Your task to perform on an android device: Check the news Image 0: 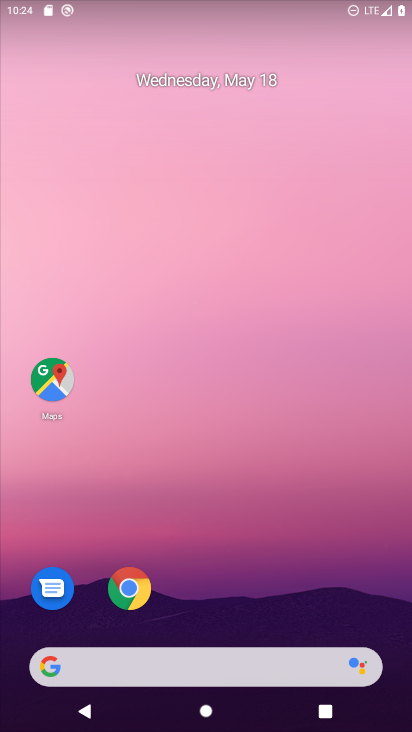
Step 0: click (99, 665)
Your task to perform on an android device: Check the news Image 1: 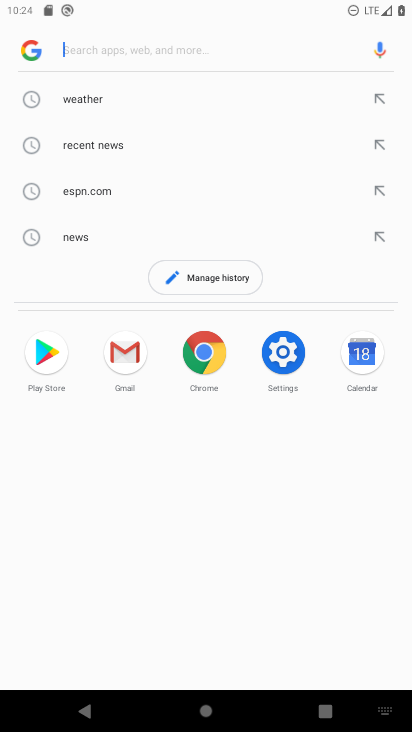
Step 1: click (85, 238)
Your task to perform on an android device: Check the news Image 2: 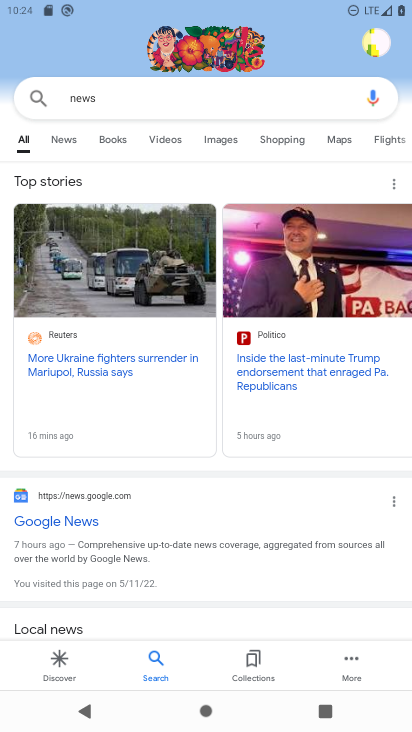
Step 2: click (64, 135)
Your task to perform on an android device: Check the news Image 3: 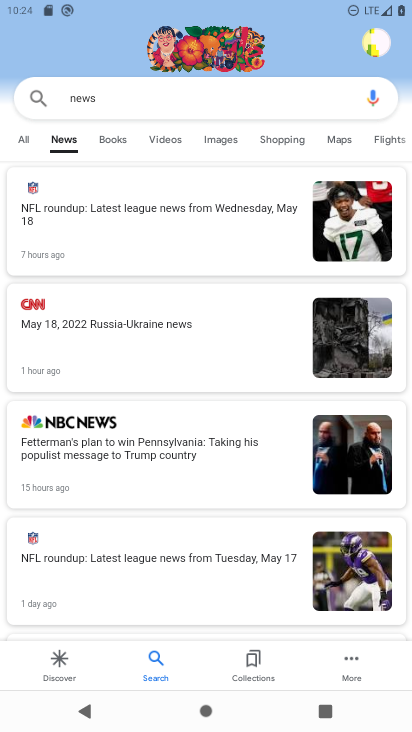
Step 3: task complete